Your task to perform on an android device: Open Google Image 0: 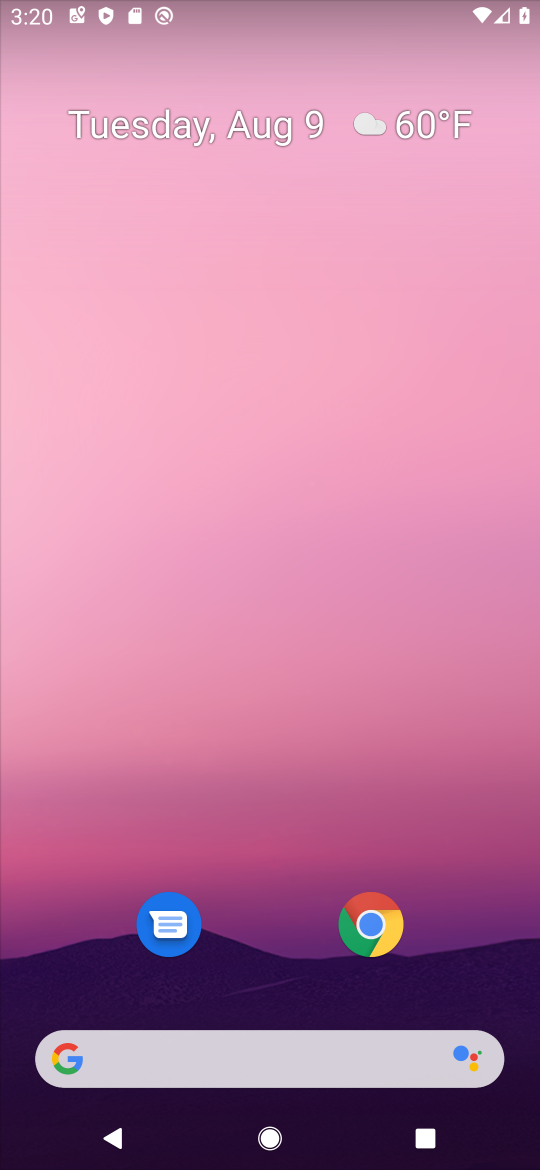
Step 0: click (303, 1072)
Your task to perform on an android device: Open Google Image 1: 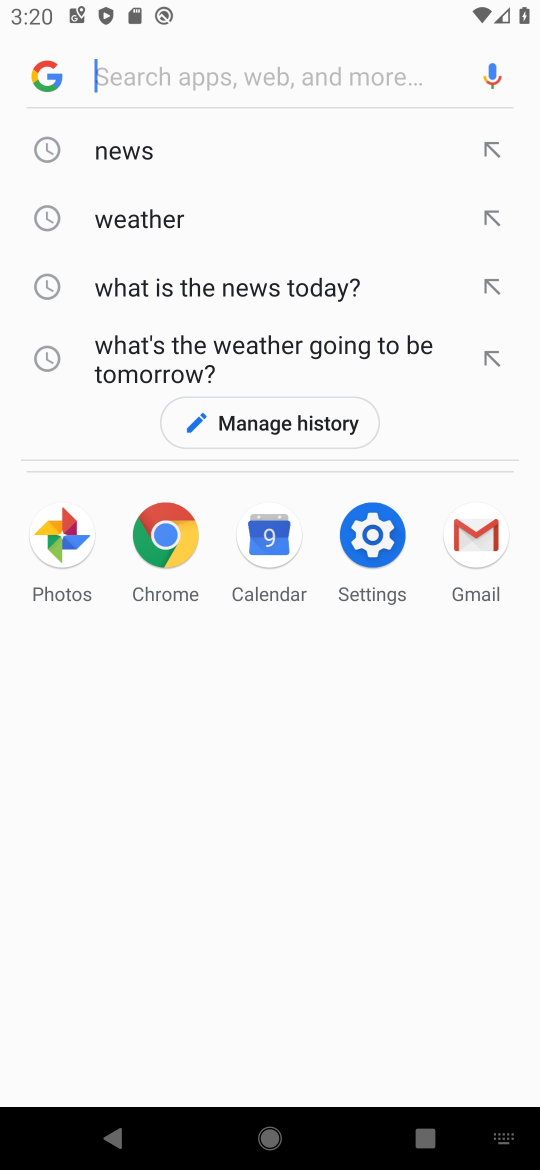
Step 1: click (42, 75)
Your task to perform on an android device: Open Google Image 2: 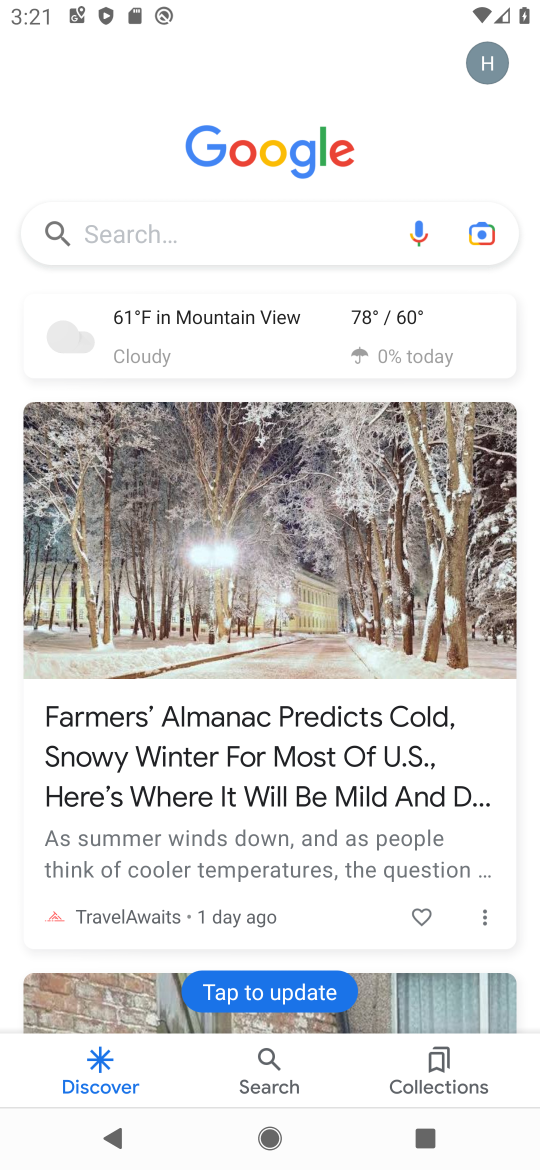
Step 2: task complete